Your task to perform on an android device: turn off data saver in the chrome app Image 0: 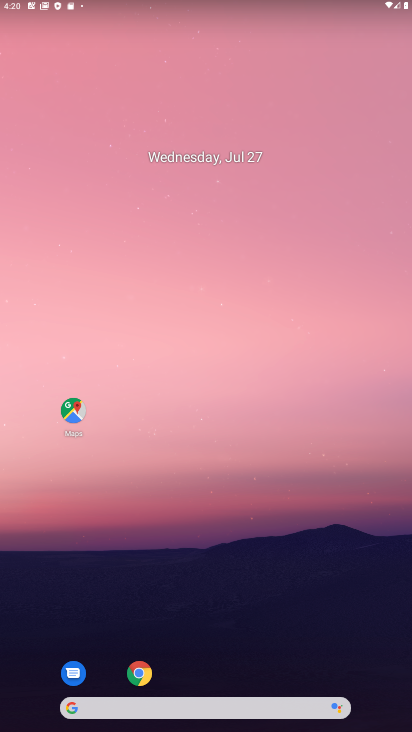
Step 0: click (138, 679)
Your task to perform on an android device: turn off data saver in the chrome app Image 1: 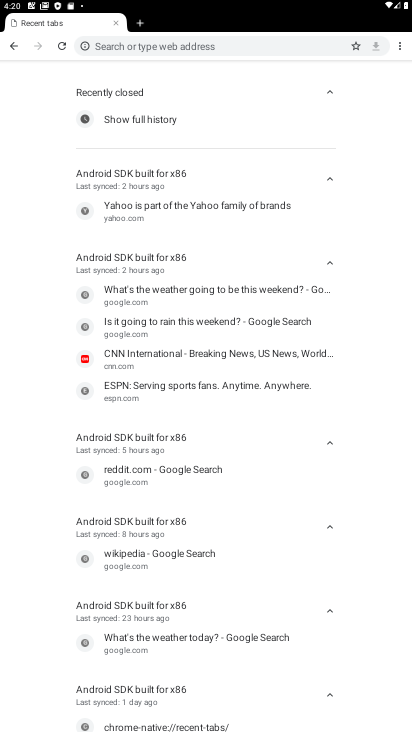
Step 1: click (404, 43)
Your task to perform on an android device: turn off data saver in the chrome app Image 2: 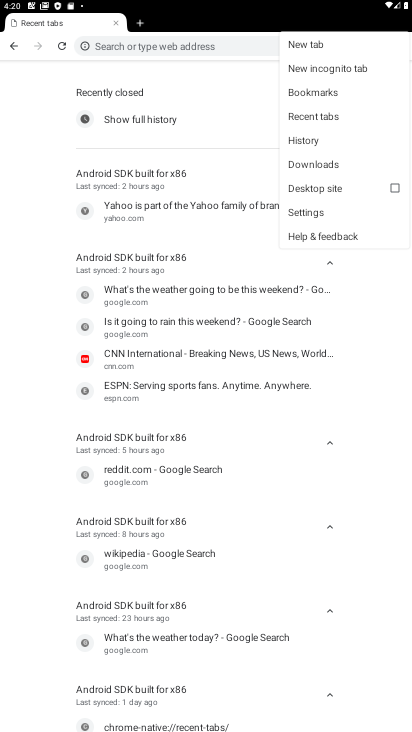
Step 2: click (298, 207)
Your task to perform on an android device: turn off data saver in the chrome app Image 3: 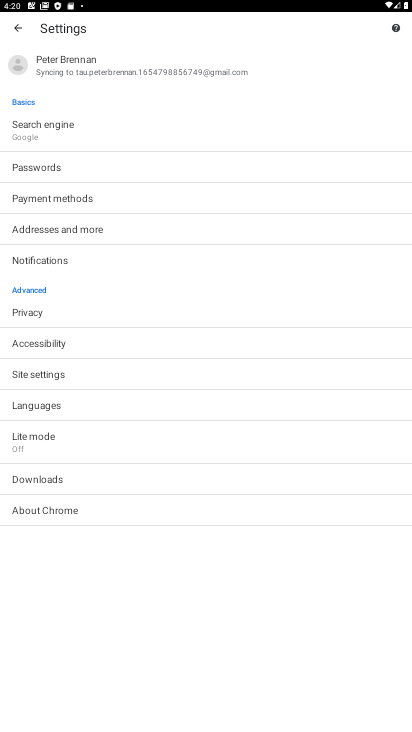
Step 3: click (53, 446)
Your task to perform on an android device: turn off data saver in the chrome app Image 4: 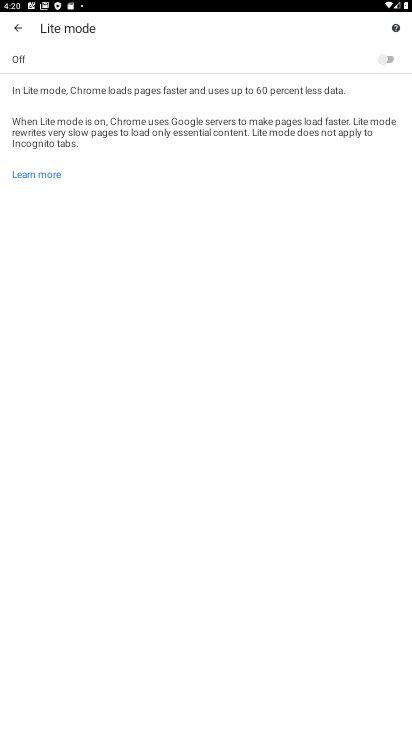
Step 4: task complete